Your task to perform on an android device: toggle javascript in the chrome app Image 0: 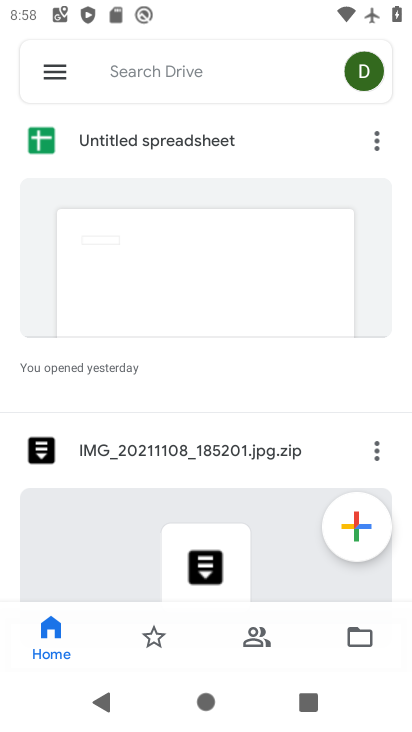
Step 0: press home button
Your task to perform on an android device: toggle javascript in the chrome app Image 1: 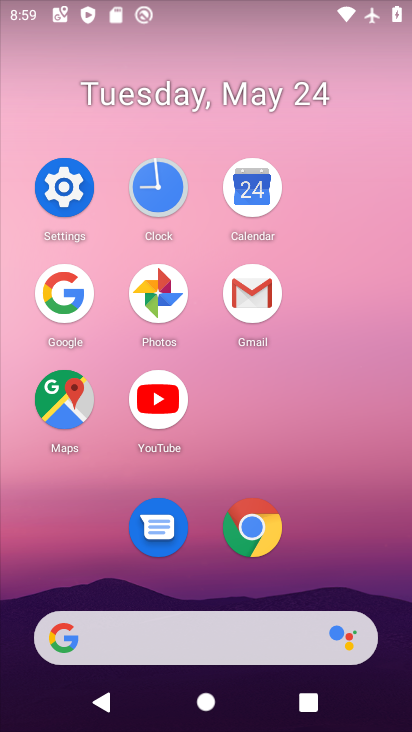
Step 1: click (269, 511)
Your task to perform on an android device: toggle javascript in the chrome app Image 2: 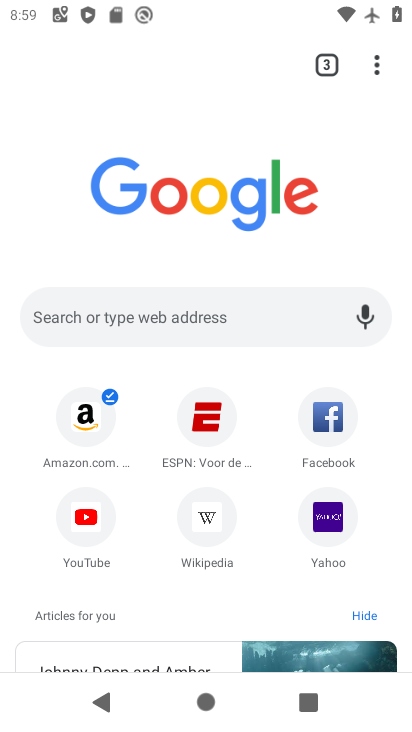
Step 2: click (366, 68)
Your task to perform on an android device: toggle javascript in the chrome app Image 3: 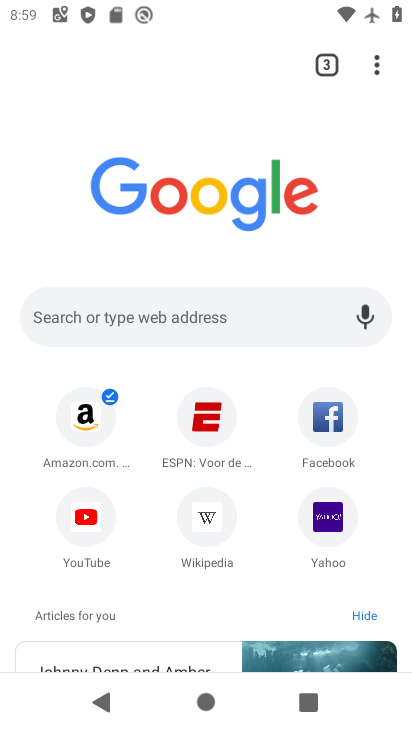
Step 3: click (383, 88)
Your task to perform on an android device: toggle javascript in the chrome app Image 4: 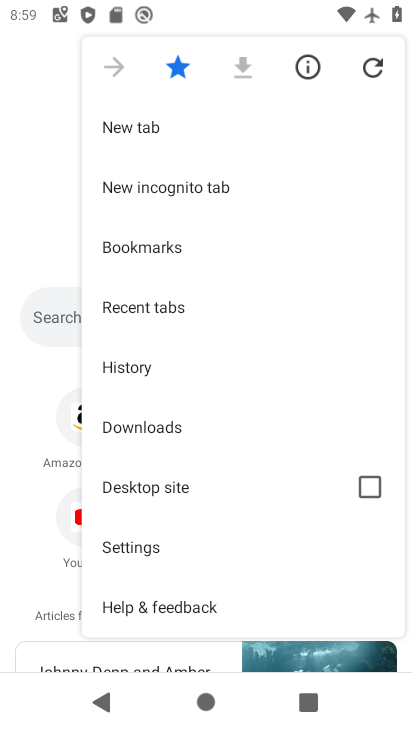
Step 4: drag from (282, 476) to (314, 82)
Your task to perform on an android device: toggle javascript in the chrome app Image 5: 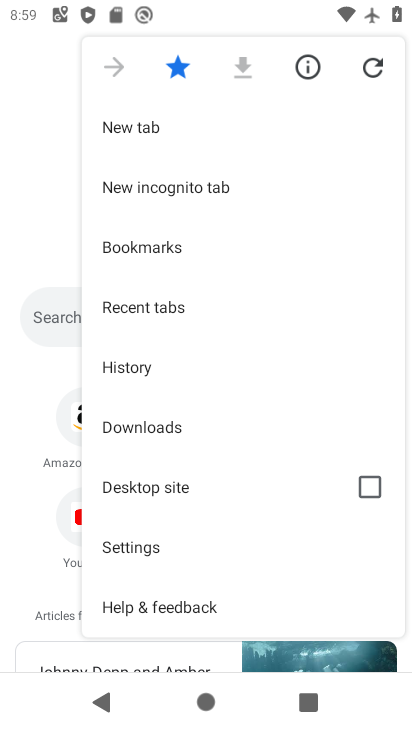
Step 5: drag from (214, 508) to (253, 193)
Your task to perform on an android device: toggle javascript in the chrome app Image 6: 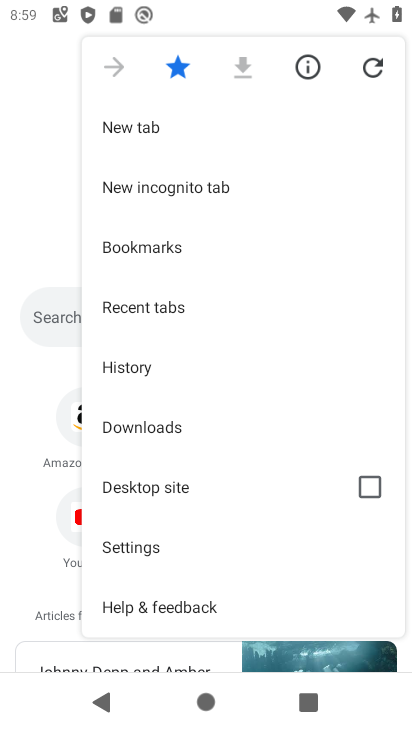
Step 6: click (160, 554)
Your task to perform on an android device: toggle javascript in the chrome app Image 7: 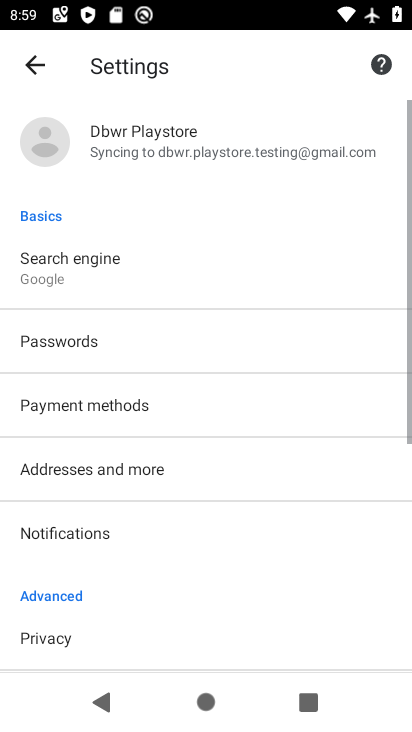
Step 7: drag from (160, 554) to (217, 164)
Your task to perform on an android device: toggle javascript in the chrome app Image 8: 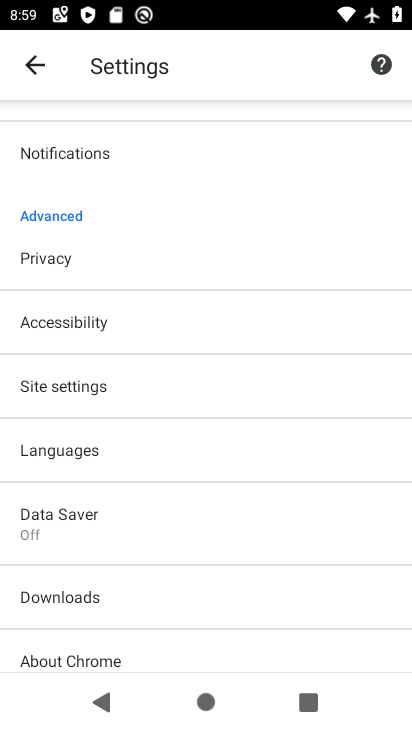
Step 8: click (167, 372)
Your task to perform on an android device: toggle javascript in the chrome app Image 9: 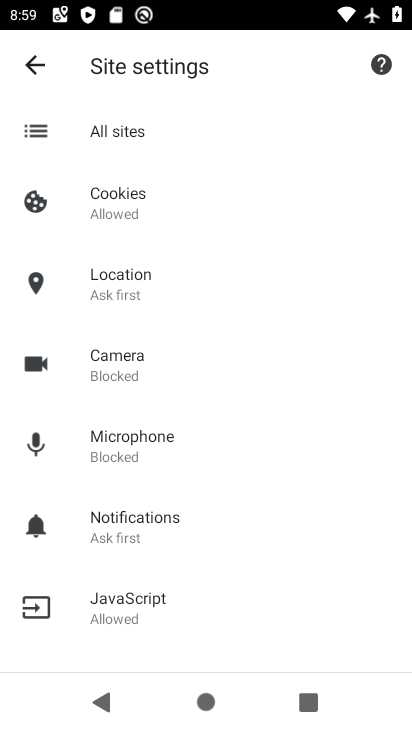
Step 9: click (113, 590)
Your task to perform on an android device: toggle javascript in the chrome app Image 10: 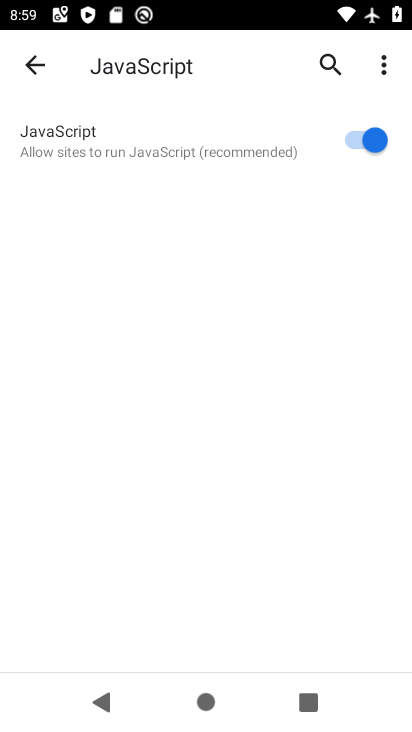
Step 10: click (372, 130)
Your task to perform on an android device: toggle javascript in the chrome app Image 11: 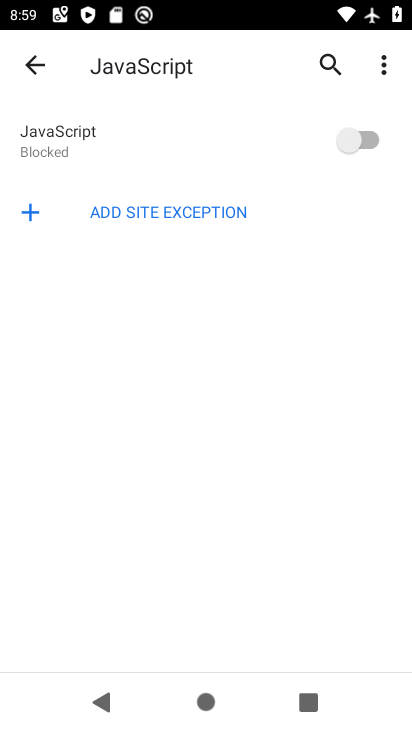
Step 11: task complete